Your task to perform on an android device: Search for Italian restaurants on Maps Image 0: 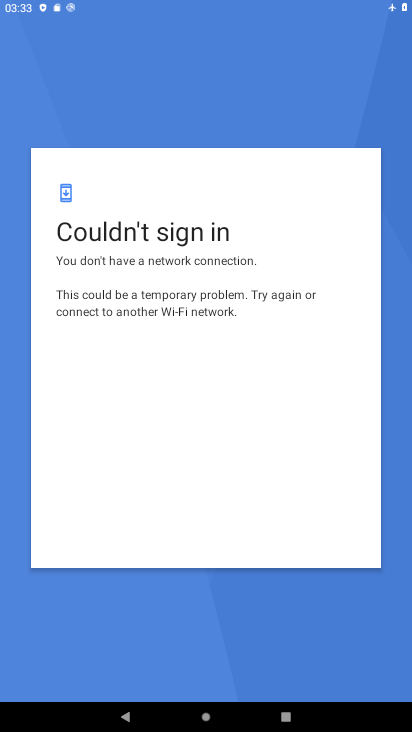
Step 0: press home button
Your task to perform on an android device: Search for Italian restaurants on Maps Image 1: 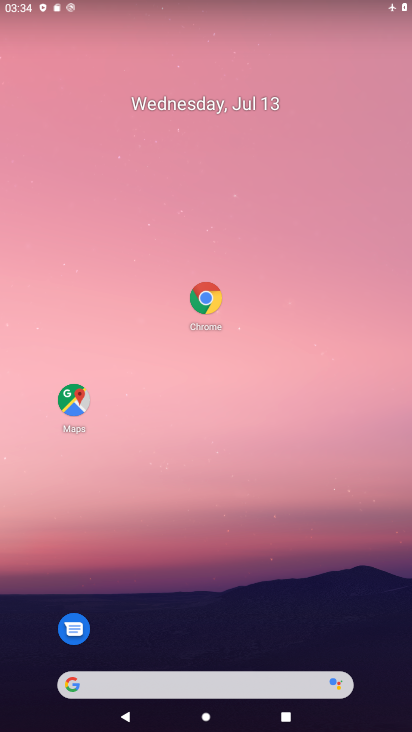
Step 1: click (142, 292)
Your task to perform on an android device: Search for Italian restaurants on Maps Image 2: 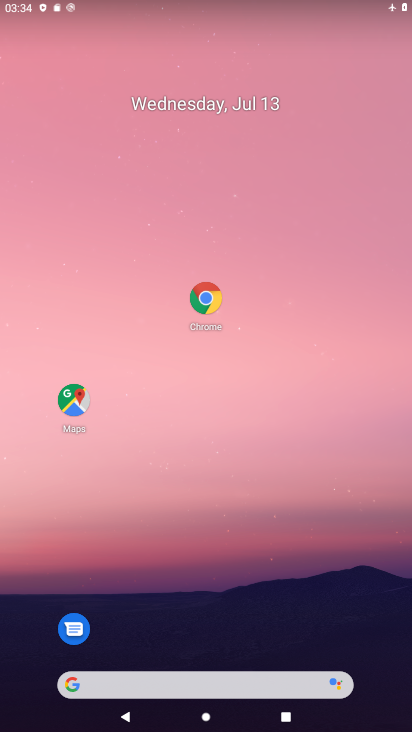
Step 2: drag from (217, 718) to (241, 302)
Your task to perform on an android device: Search for Italian restaurants on Maps Image 3: 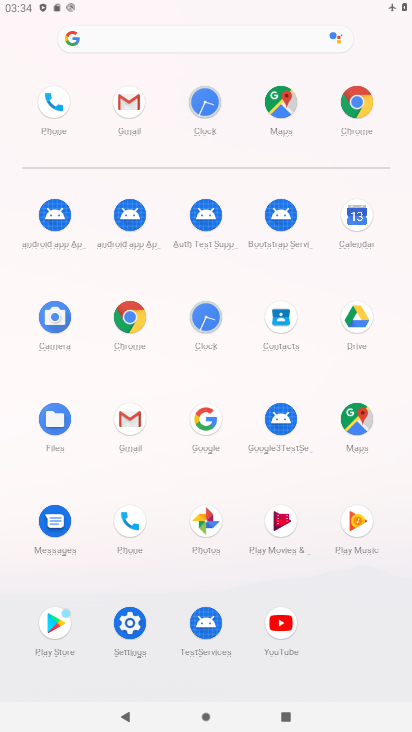
Step 3: click (348, 411)
Your task to perform on an android device: Search for Italian restaurants on Maps Image 4: 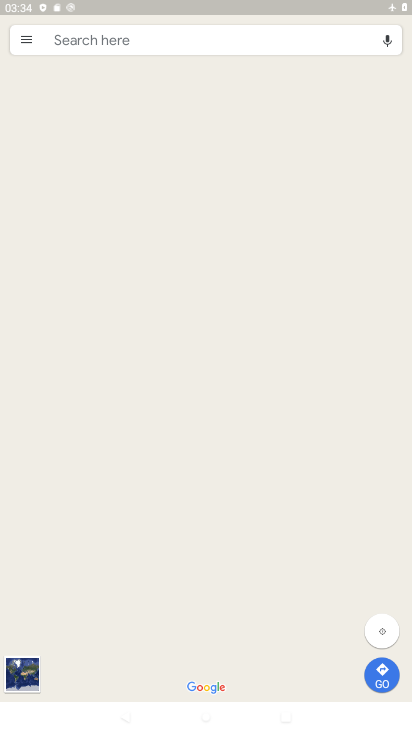
Step 4: click (210, 30)
Your task to perform on an android device: Search for Italian restaurants on Maps Image 5: 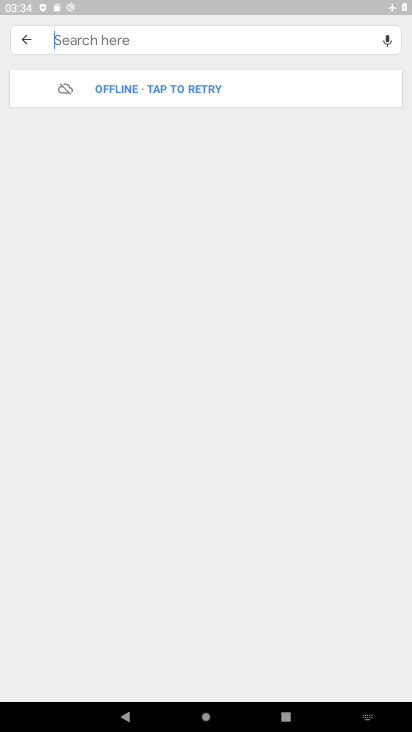
Step 5: type " Italian restaurants on "
Your task to perform on an android device: Search for Italian restaurants on Maps Image 6: 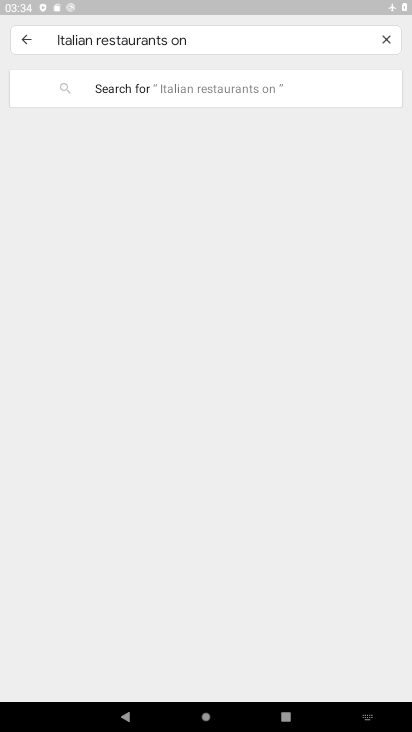
Step 6: task complete